Your task to perform on an android device: What's on my calendar today? Image 0: 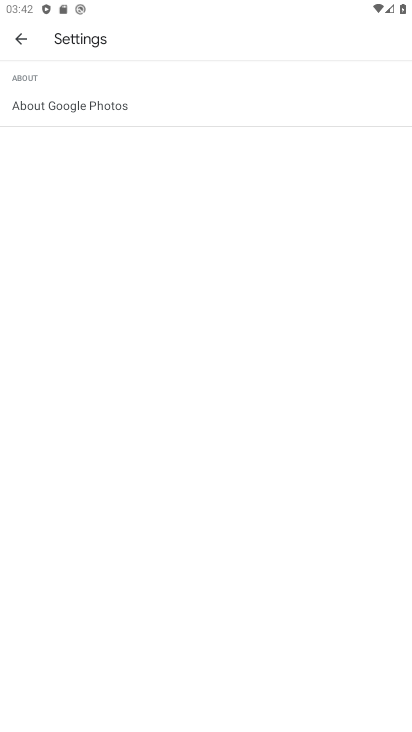
Step 0: press home button
Your task to perform on an android device: What's on my calendar today? Image 1: 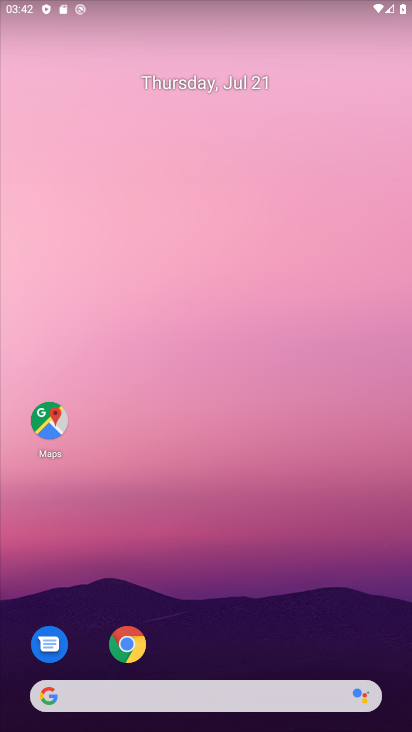
Step 1: drag from (230, 652) to (249, 40)
Your task to perform on an android device: What's on my calendar today? Image 2: 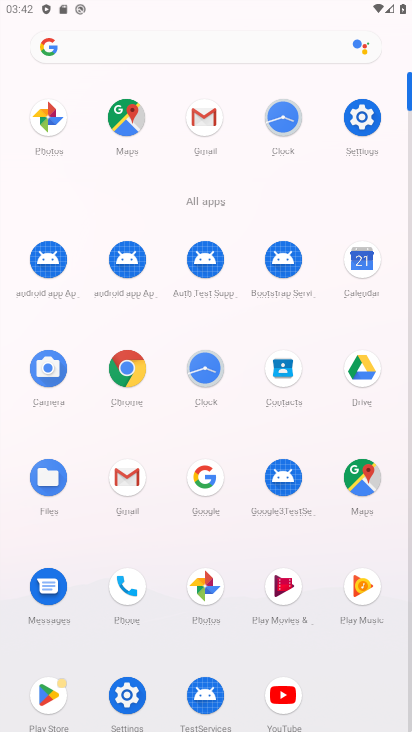
Step 2: click (353, 262)
Your task to perform on an android device: What's on my calendar today? Image 3: 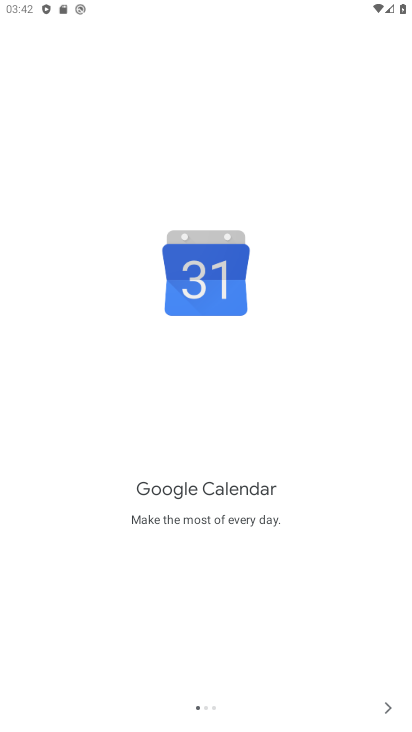
Step 3: click (386, 708)
Your task to perform on an android device: What's on my calendar today? Image 4: 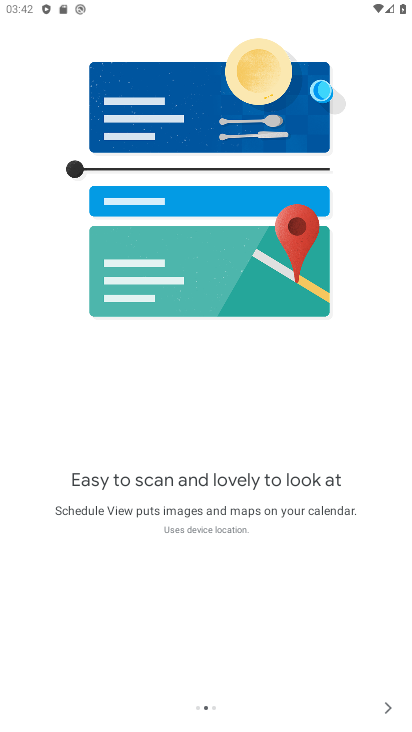
Step 4: click (386, 708)
Your task to perform on an android device: What's on my calendar today? Image 5: 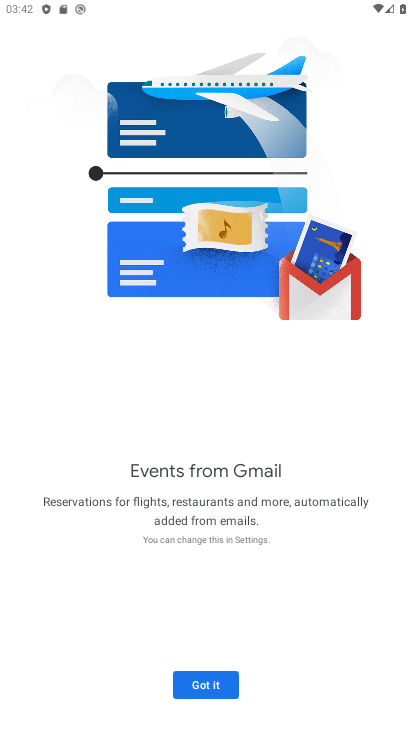
Step 5: click (203, 679)
Your task to perform on an android device: What's on my calendar today? Image 6: 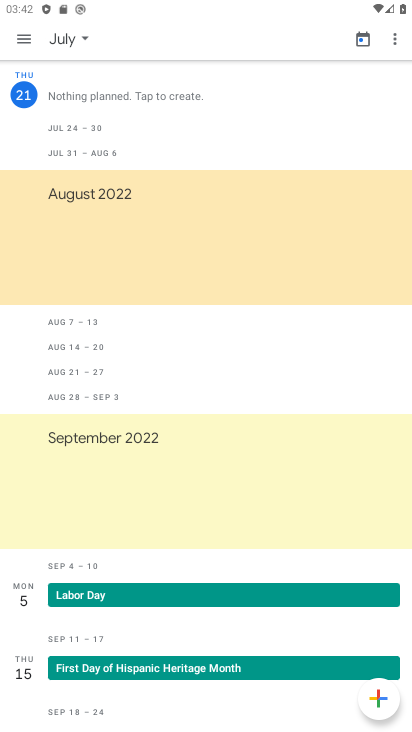
Step 6: click (359, 38)
Your task to perform on an android device: What's on my calendar today? Image 7: 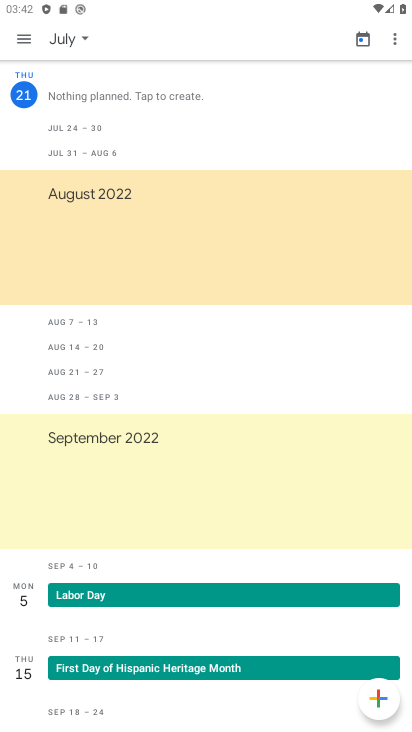
Step 7: click (365, 39)
Your task to perform on an android device: What's on my calendar today? Image 8: 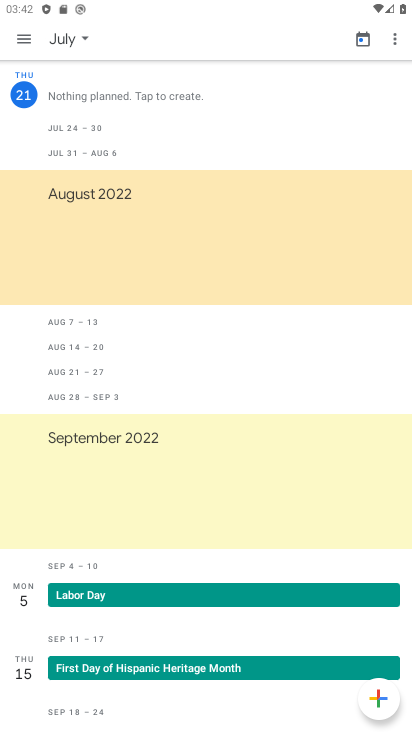
Step 8: click (84, 37)
Your task to perform on an android device: What's on my calendar today? Image 9: 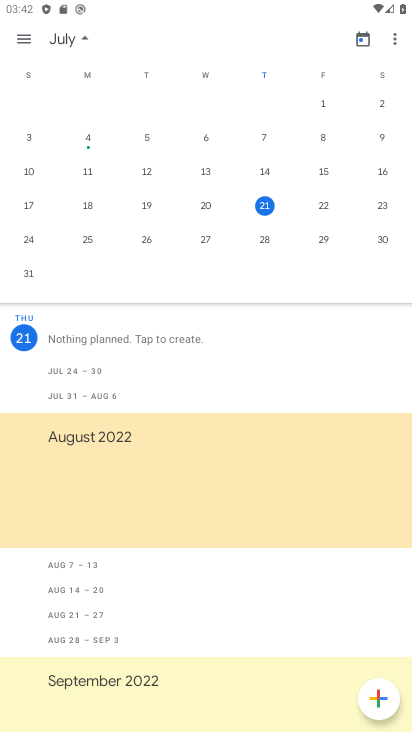
Step 9: click (272, 208)
Your task to perform on an android device: What's on my calendar today? Image 10: 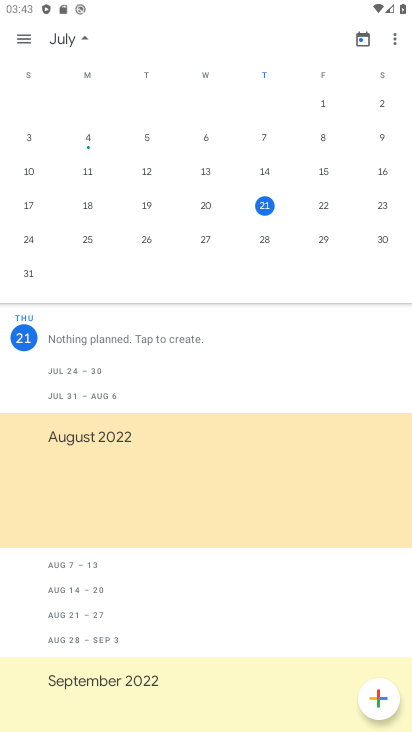
Step 10: click (17, 37)
Your task to perform on an android device: What's on my calendar today? Image 11: 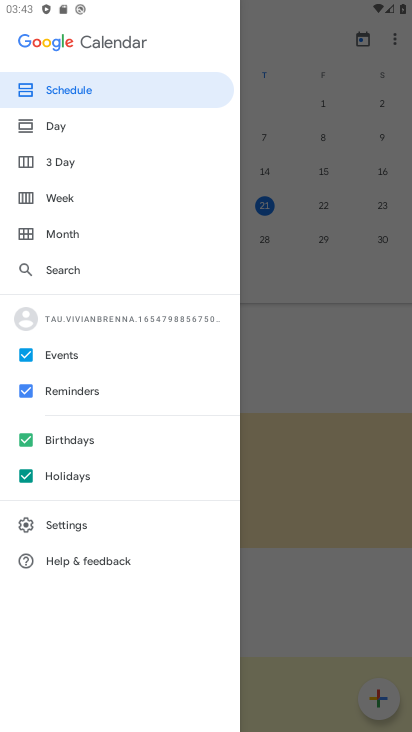
Step 11: click (43, 126)
Your task to perform on an android device: What's on my calendar today? Image 12: 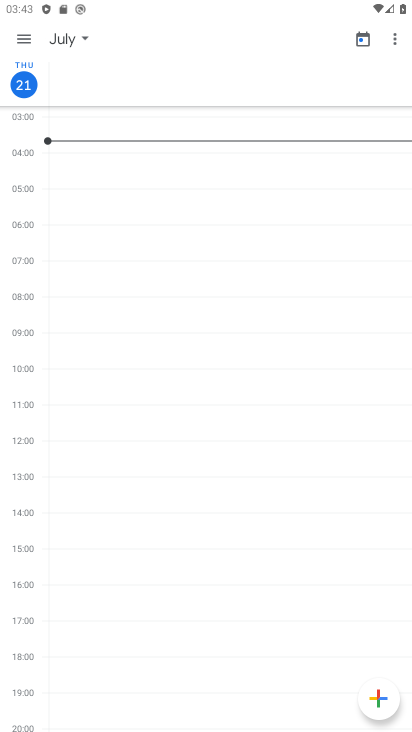
Step 12: task complete